Your task to perform on an android device: Find coffee shops on Maps Image 0: 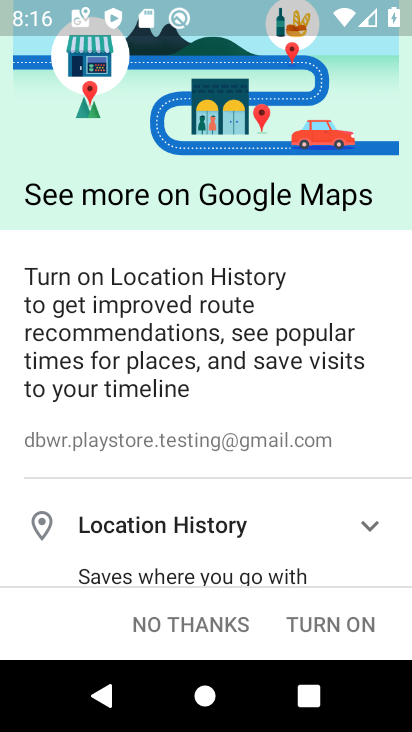
Step 0: press home button
Your task to perform on an android device: Find coffee shops on Maps Image 1: 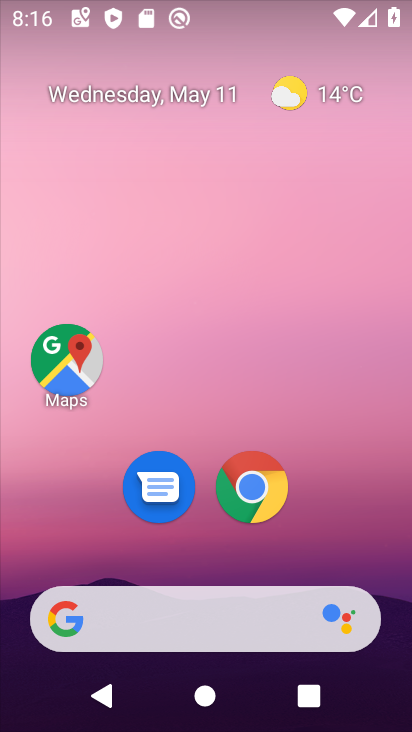
Step 1: click (87, 351)
Your task to perform on an android device: Find coffee shops on Maps Image 2: 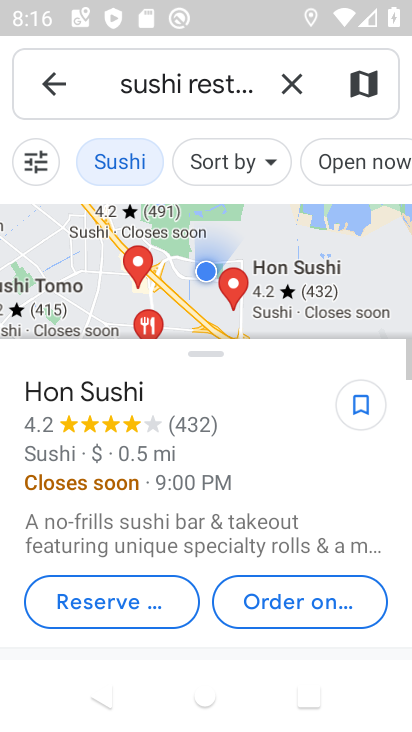
Step 2: click (291, 89)
Your task to perform on an android device: Find coffee shops on Maps Image 3: 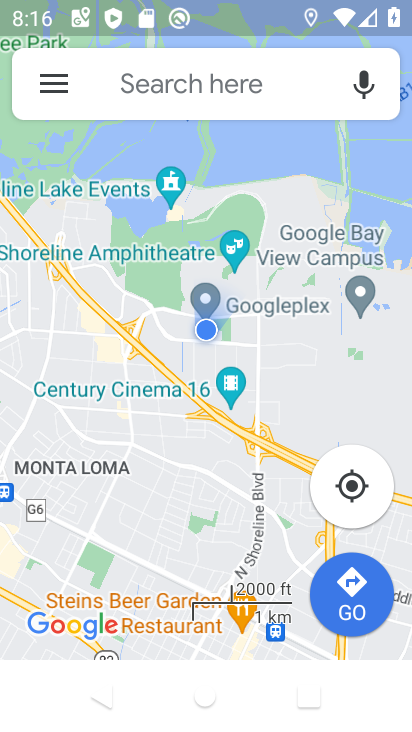
Step 3: click (229, 81)
Your task to perform on an android device: Find coffee shops on Maps Image 4: 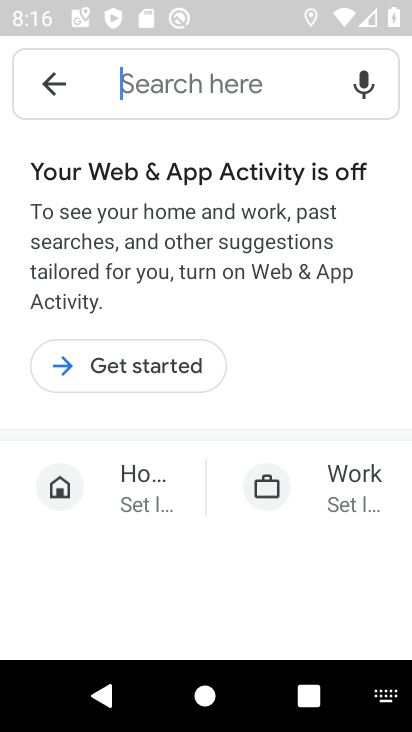
Step 4: type "coffee"
Your task to perform on an android device: Find coffee shops on Maps Image 5: 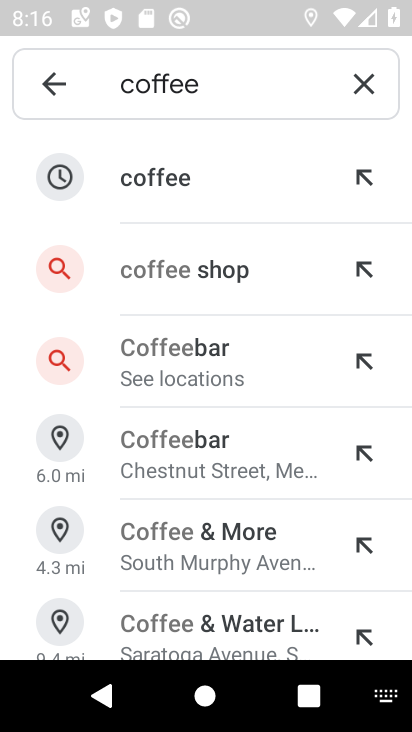
Step 5: click (128, 180)
Your task to perform on an android device: Find coffee shops on Maps Image 6: 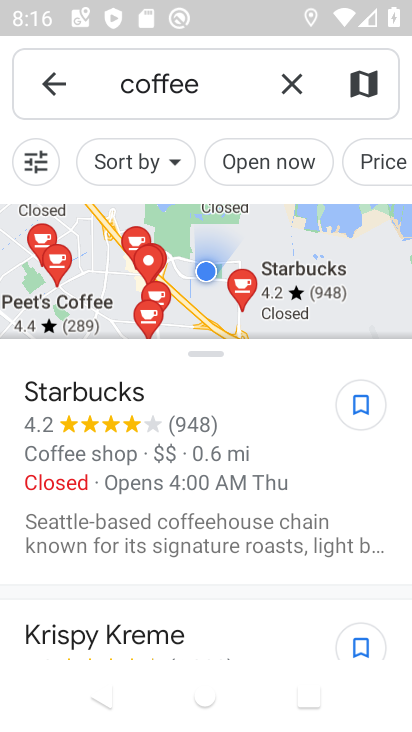
Step 6: task complete